Your task to perform on an android device: see creations saved in the google photos Image 0: 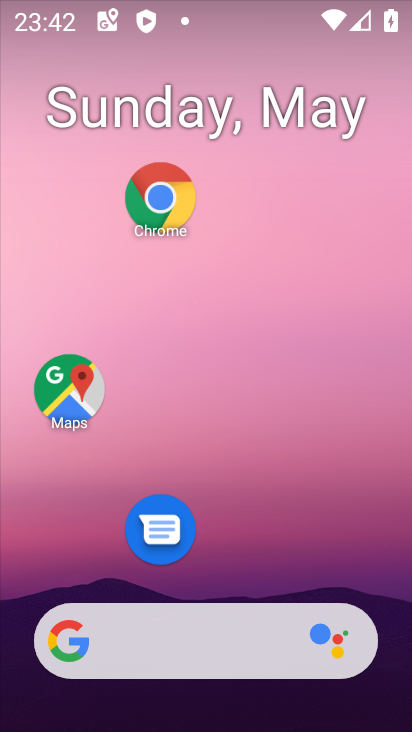
Step 0: drag from (305, 570) to (356, 38)
Your task to perform on an android device: see creations saved in the google photos Image 1: 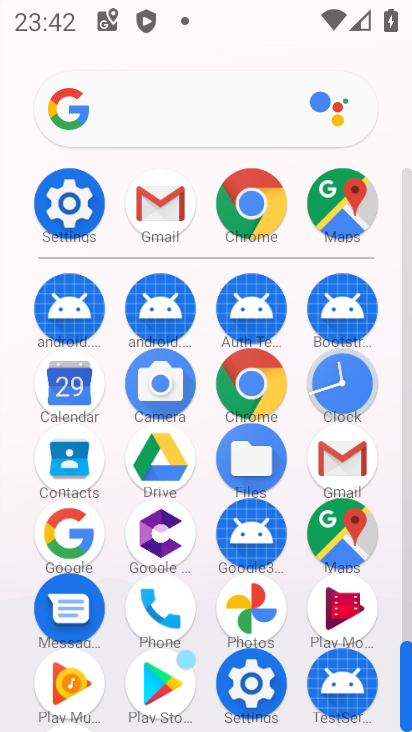
Step 1: click (258, 609)
Your task to perform on an android device: see creations saved in the google photos Image 2: 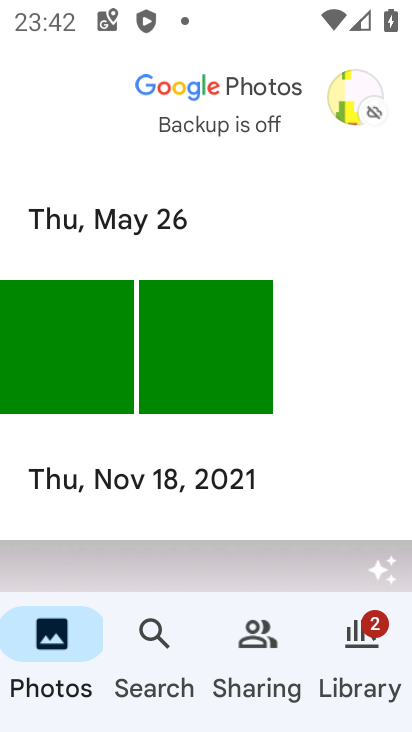
Step 2: task complete